Your task to perform on an android device: move an email to a new category in the gmail app Image 0: 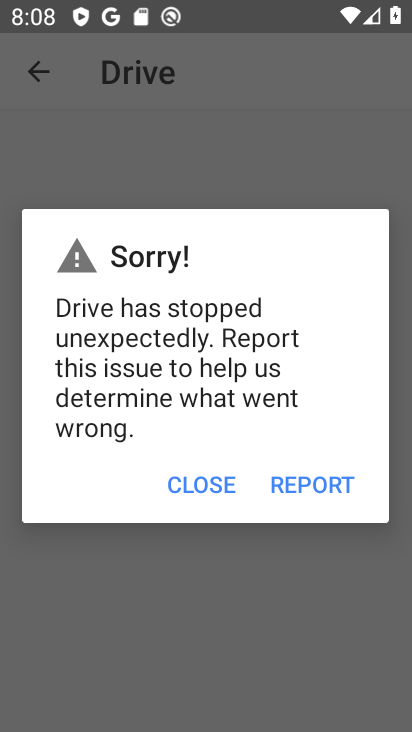
Step 0: press home button
Your task to perform on an android device: move an email to a new category in the gmail app Image 1: 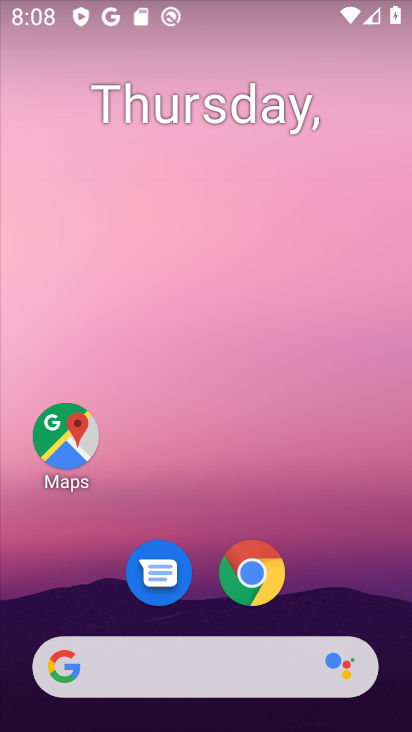
Step 1: drag from (403, 590) to (335, 44)
Your task to perform on an android device: move an email to a new category in the gmail app Image 2: 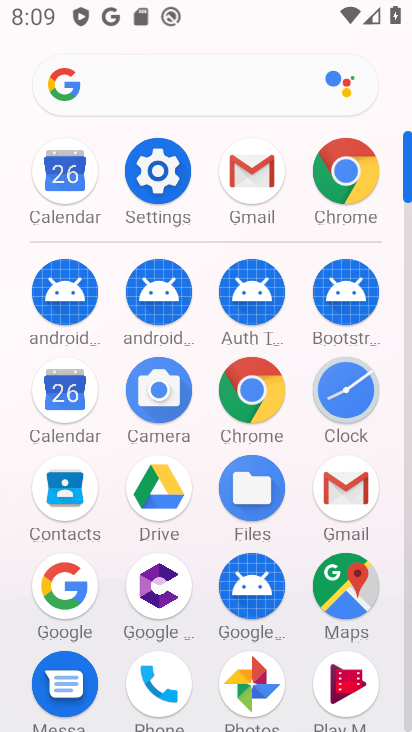
Step 2: drag from (220, 576) to (209, 278)
Your task to perform on an android device: move an email to a new category in the gmail app Image 3: 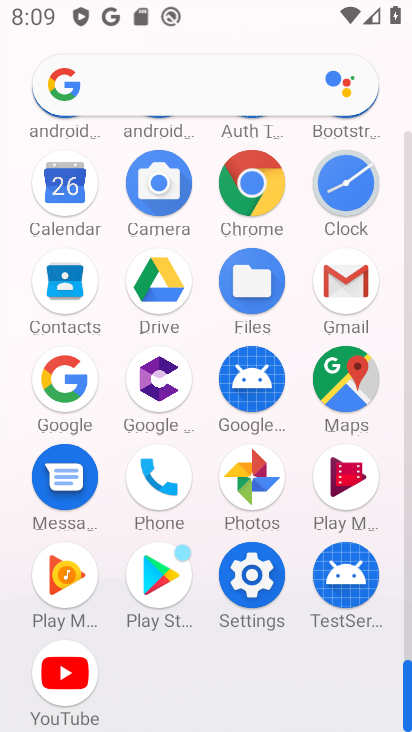
Step 3: click (329, 289)
Your task to perform on an android device: move an email to a new category in the gmail app Image 4: 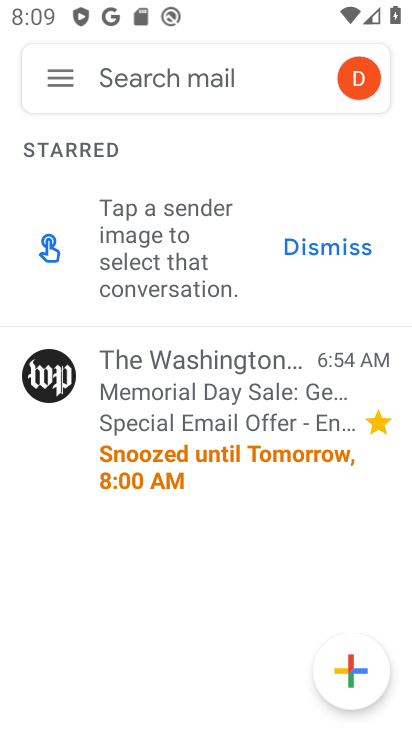
Step 4: click (313, 361)
Your task to perform on an android device: move an email to a new category in the gmail app Image 5: 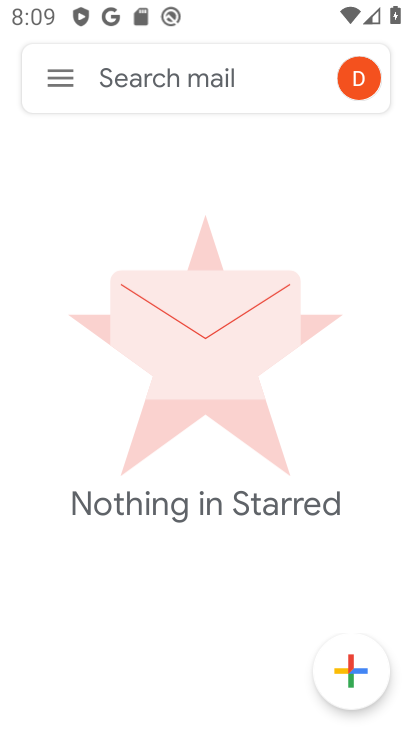
Step 5: task complete